Your task to perform on an android device: clear history in the chrome app Image 0: 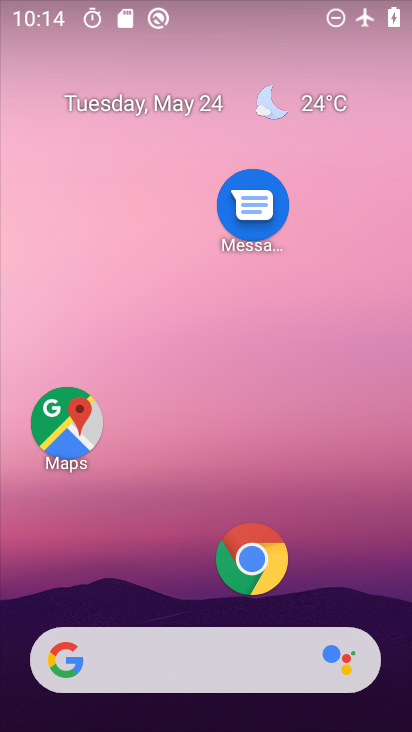
Step 0: click (239, 565)
Your task to perform on an android device: clear history in the chrome app Image 1: 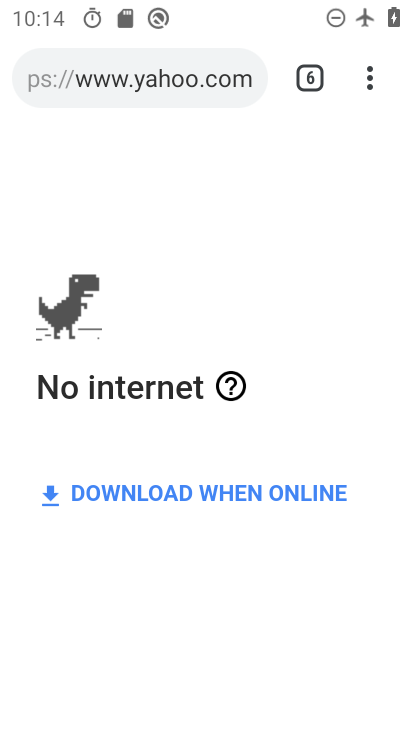
Step 1: drag from (368, 76) to (116, 433)
Your task to perform on an android device: clear history in the chrome app Image 2: 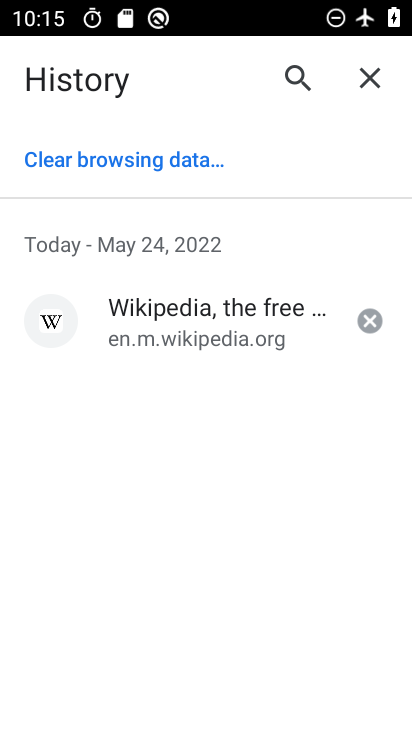
Step 2: click (135, 160)
Your task to perform on an android device: clear history in the chrome app Image 3: 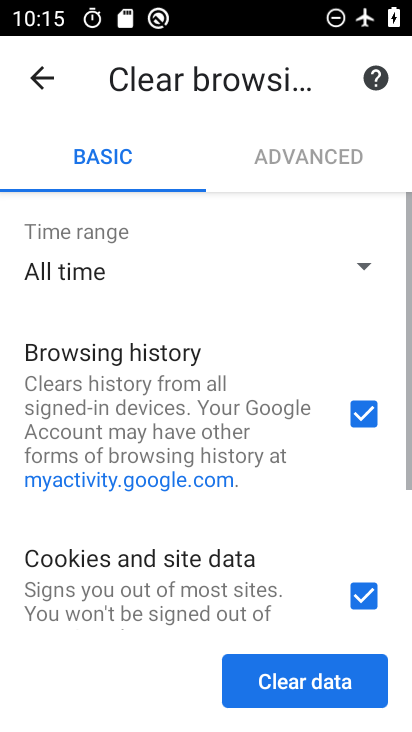
Step 3: click (323, 695)
Your task to perform on an android device: clear history in the chrome app Image 4: 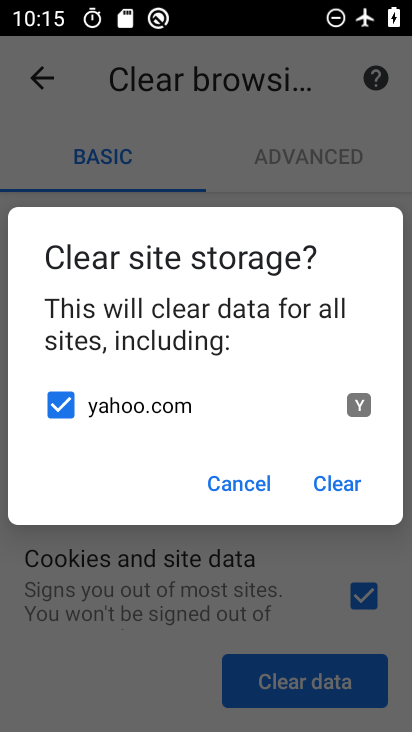
Step 4: click (346, 482)
Your task to perform on an android device: clear history in the chrome app Image 5: 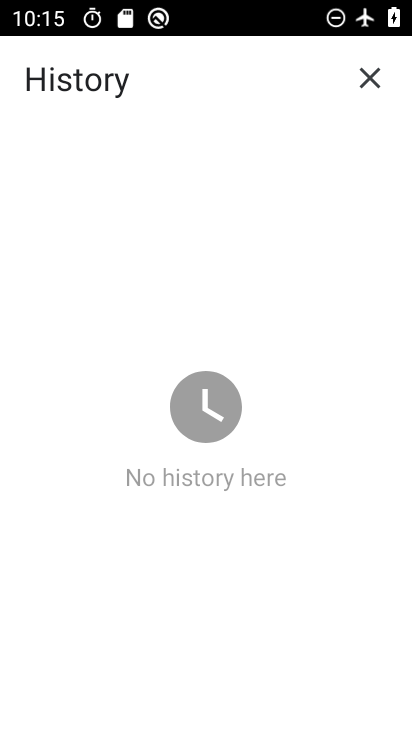
Step 5: task complete